Your task to perform on an android device: stop showing notifications on the lock screen Image 0: 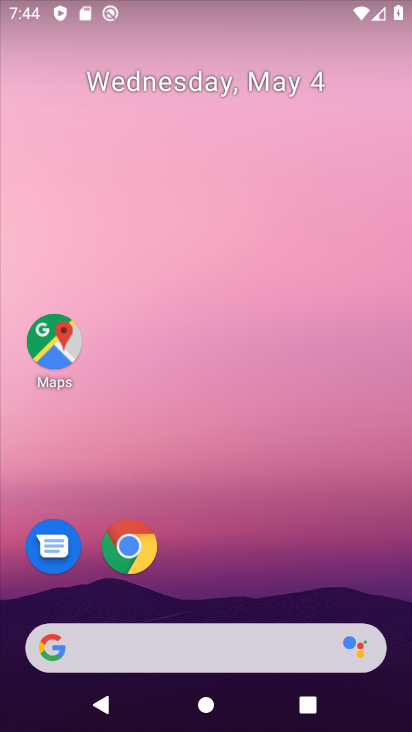
Step 0: drag from (302, 530) to (288, 53)
Your task to perform on an android device: stop showing notifications on the lock screen Image 1: 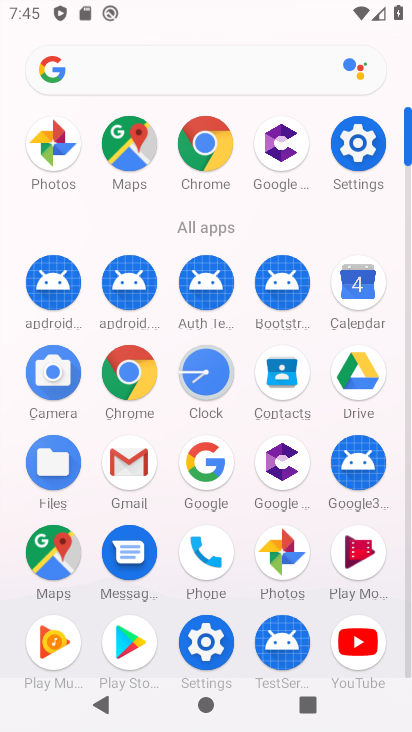
Step 1: drag from (249, 243) to (231, 180)
Your task to perform on an android device: stop showing notifications on the lock screen Image 2: 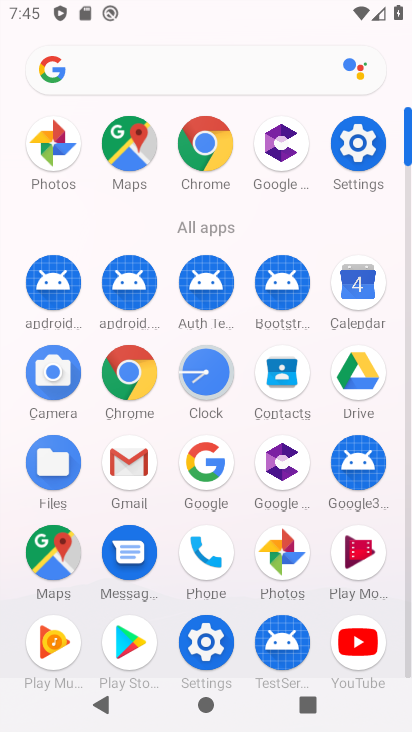
Step 2: click (359, 156)
Your task to perform on an android device: stop showing notifications on the lock screen Image 3: 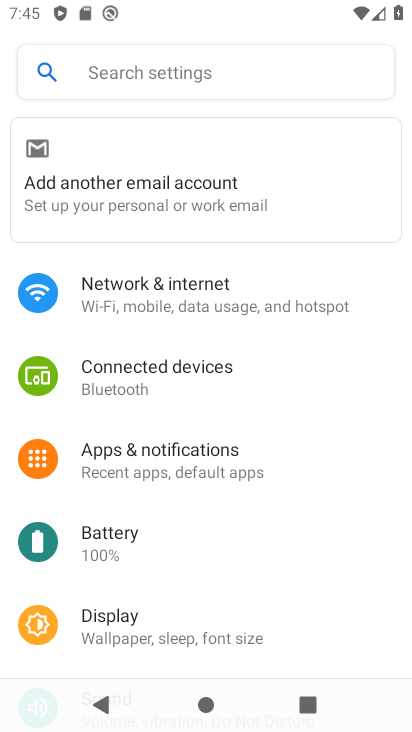
Step 3: drag from (233, 583) to (228, 235)
Your task to perform on an android device: stop showing notifications on the lock screen Image 4: 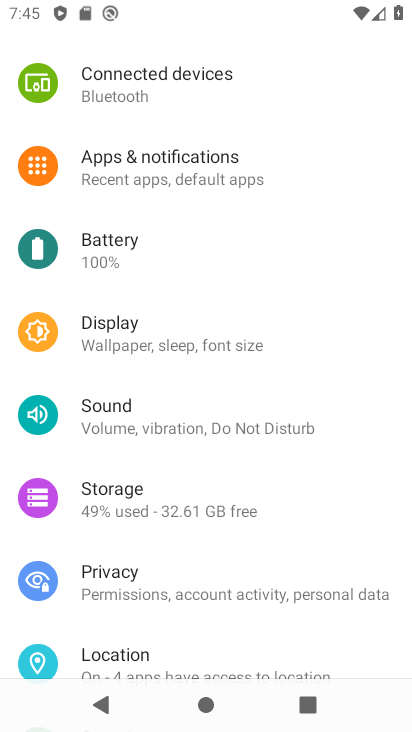
Step 4: drag from (202, 647) to (204, 254)
Your task to perform on an android device: stop showing notifications on the lock screen Image 5: 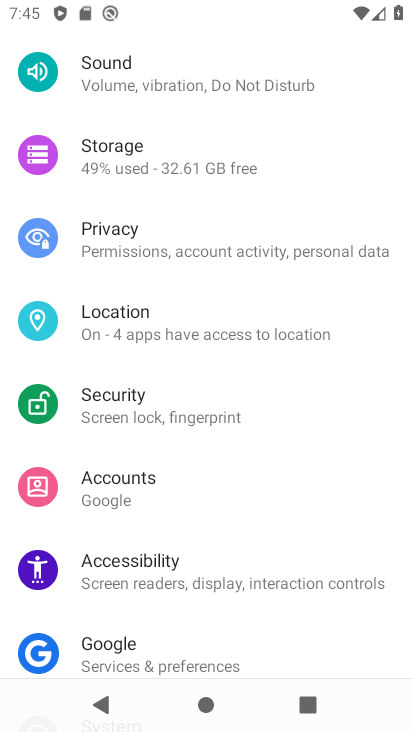
Step 5: drag from (175, 186) to (172, 614)
Your task to perform on an android device: stop showing notifications on the lock screen Image 6: 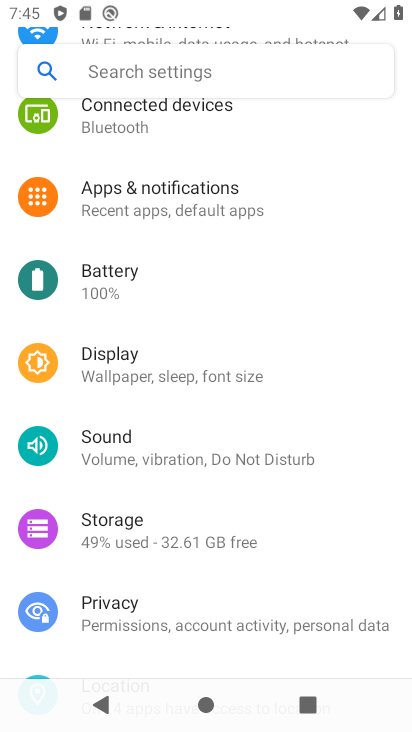
Step 6: click (163, 210)
Your task to perform on an android device: stop showing notifications on the lock screen Image 7: 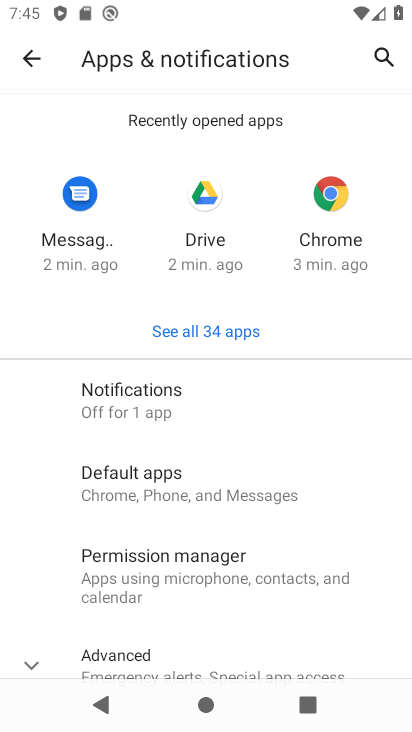
Step 7: click (192, 404)
Your task to perform on an android device: stop showing notifications on the lock screen Image 8: 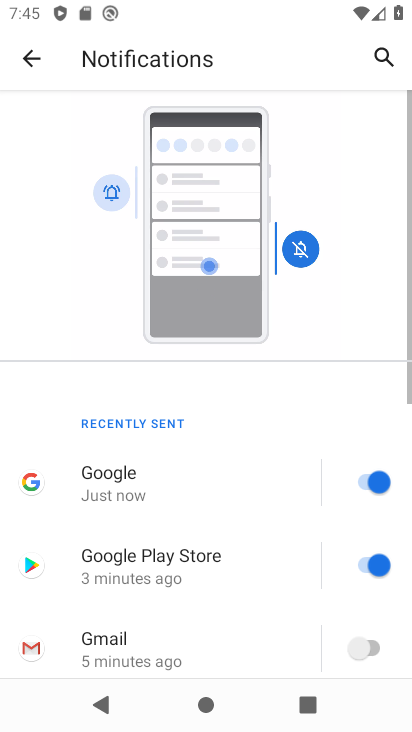
Step 8: drag from (194, 637) to (205, 142)
Your task to perform on an android device: stop showing notifications on the lock screen Image 9: 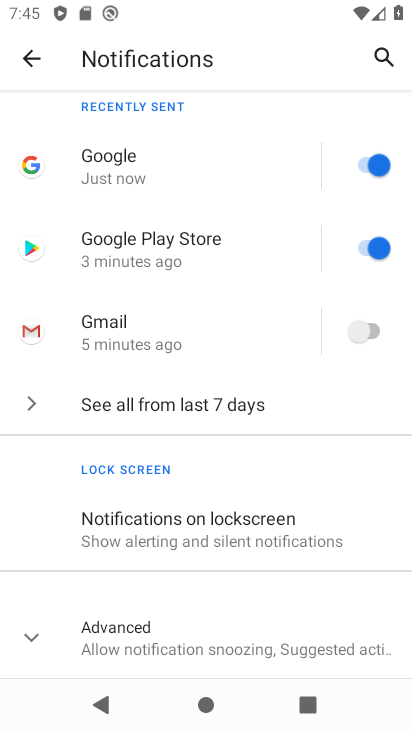
Step 9: click (197, 547)
Your task to perform on an android device: stop showing notifications on the lock screen Image 10: 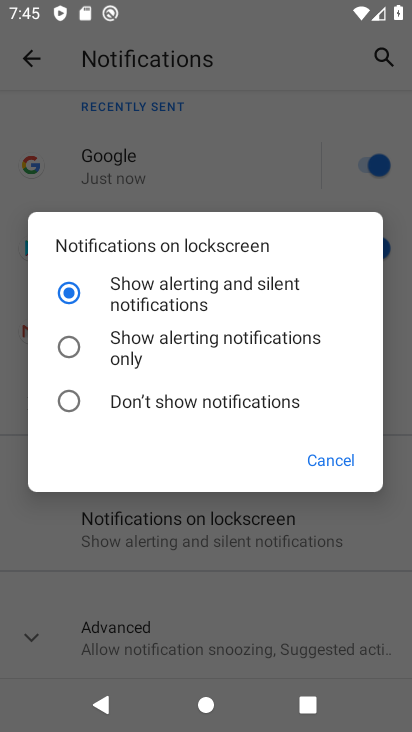
Step 10: click (179, 401)
Your task to perform on an android device: stop showing notifications on the lock screen Image 11: 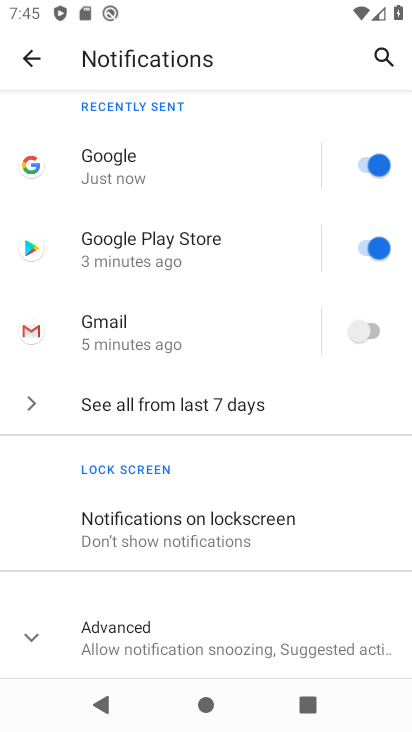
Step 11: task complete